Your task to perform on an android device: Open notification settings Image 0: 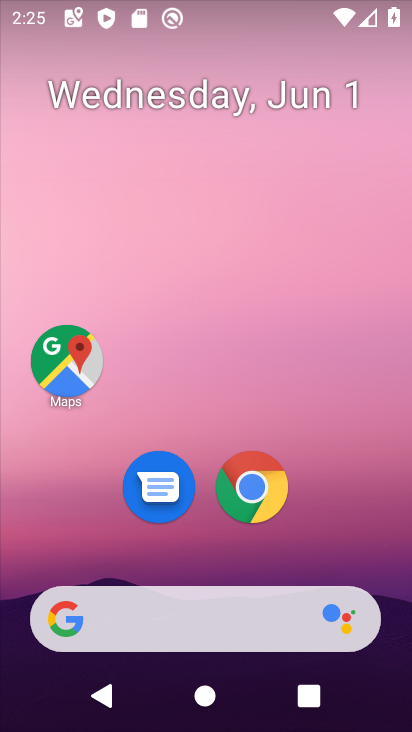
Step 0: drag from (350, 556) to (355, 134)
Your task to perform on an android device: Open notification settings Image 1: 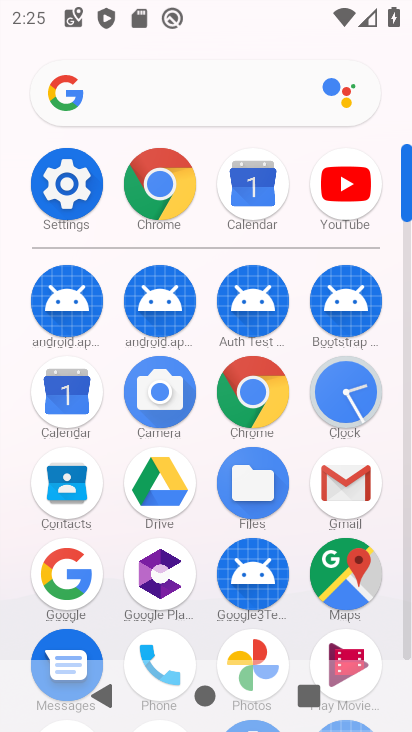
Step 1: click (80, 193)
Your task to perform on an android device: Open notification settings Image 2: 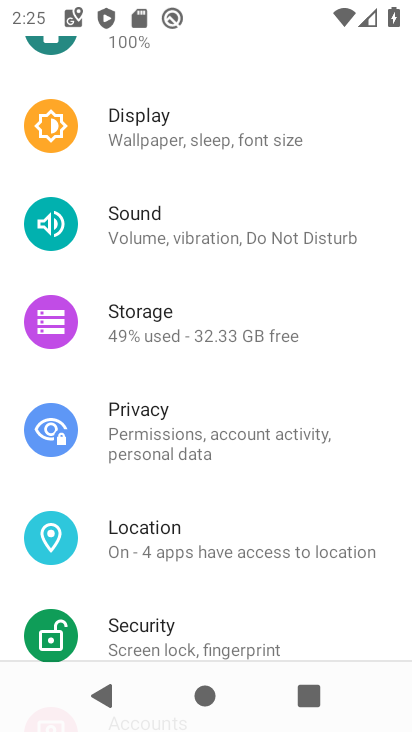
Step 2: drag from (341, 268) to (336, 385)
Your task to perform on an android device: Open notification settings Image 3: 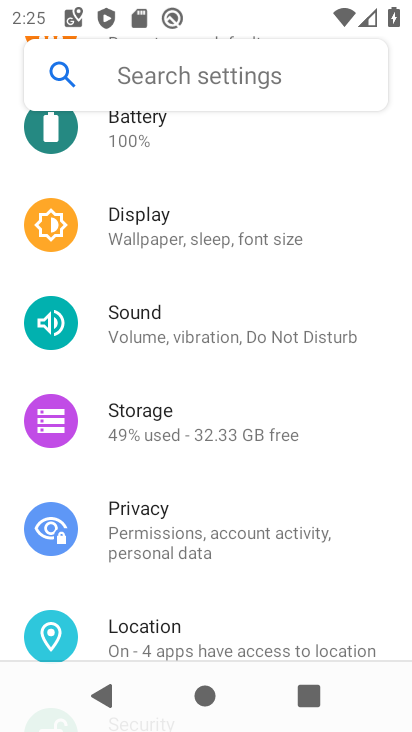
Step 3: drag from (350, 200) to (343, 350)
Your task to perform on an android device: Open notification settings Image 4: 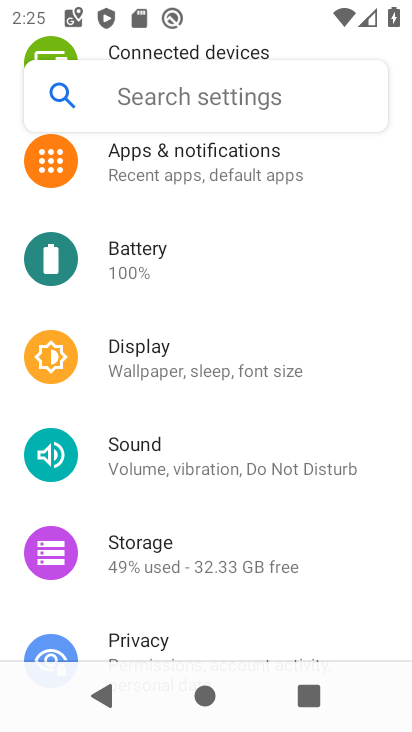
Step 4: drag from (347, 184) to (338, 337)
Your task to perform on an android device: Open notification settings Image 5: 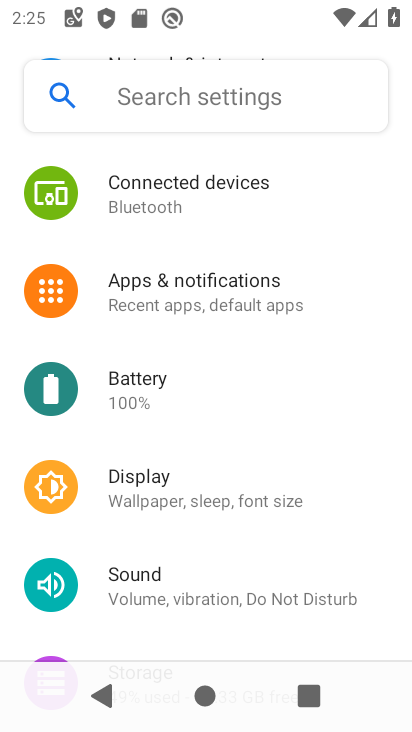
Step 5: drag from (345, 179) to (335, 289)
Your task to perform on an android device: Open notification settings Image 6: 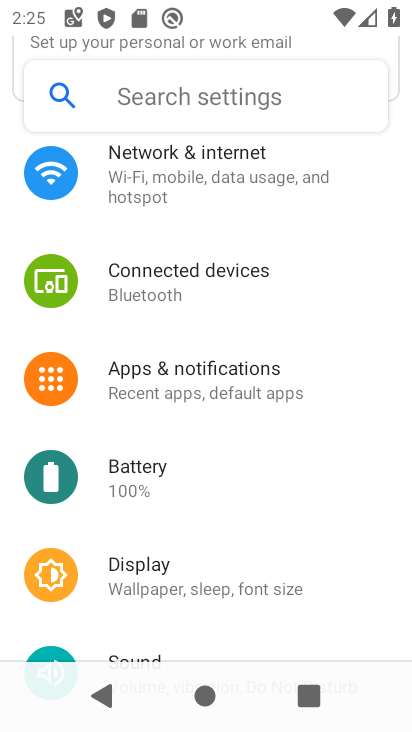
Step 6: drag from (337, 279) to (331, 430)
Your task to perform on an android device: Open notification settings Image 7: 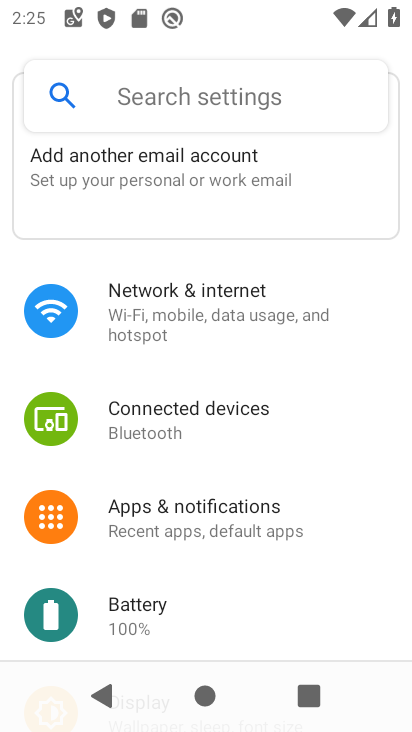
Step 7: drag from (342, 487) to (357, 374)
Your task to perform on an android device: Open notification settings Image 8: 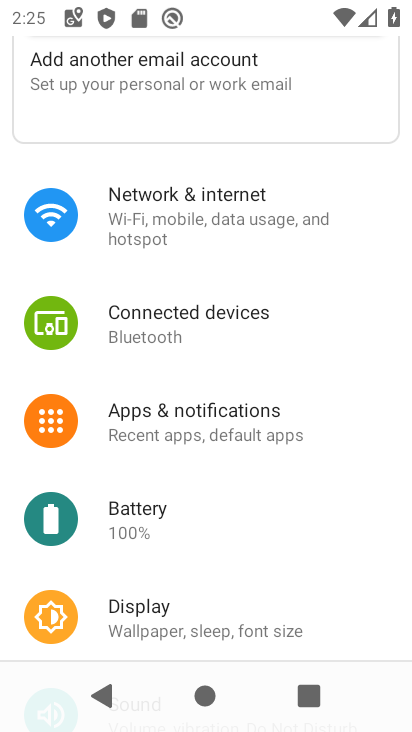
Step 8: drag from (335, 498) to (339, 400)
Your task to perform on an android device: Open notification settings Image 9: 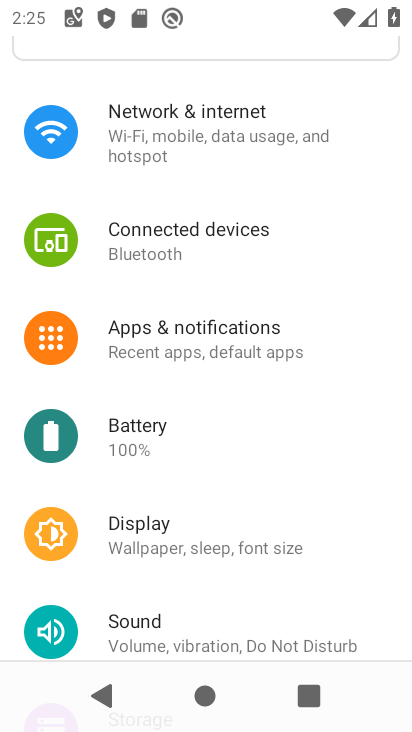
Step 9: click (280, 364)
Your task to perform on an android device: Open notification settings Image 10: 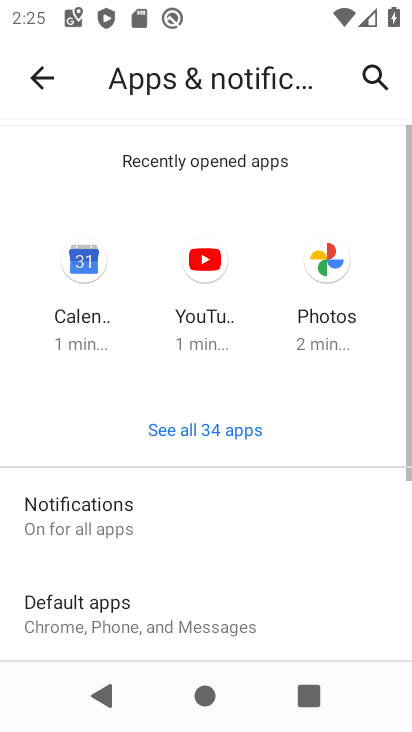
Step 10: drag from (278, 517) to (292, 333)
Your task to perform on an android device: Open notification settings Image 11: 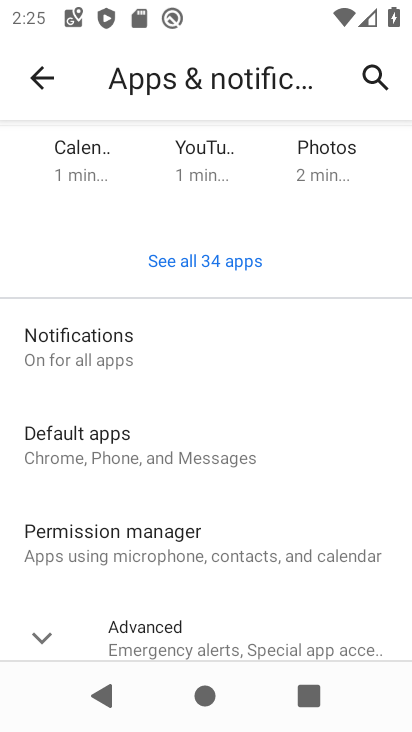
Step 11: click (254, 356)
Your task to perform on an android device: Open notification settings Image 12: 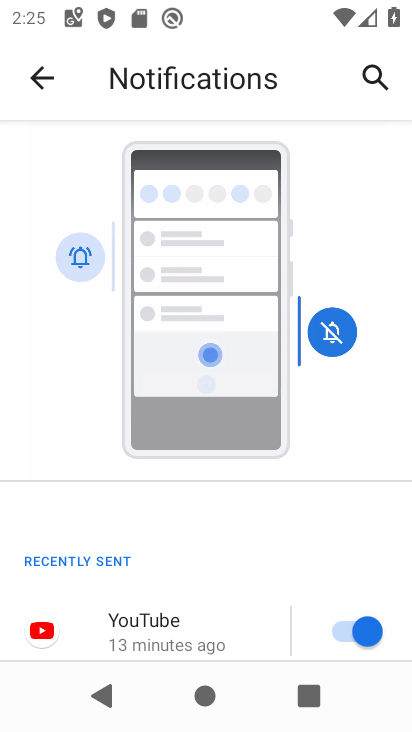
Step 12: task complete